Your task to perform on an android device: Is it going to rain tomorrow? Image 0: 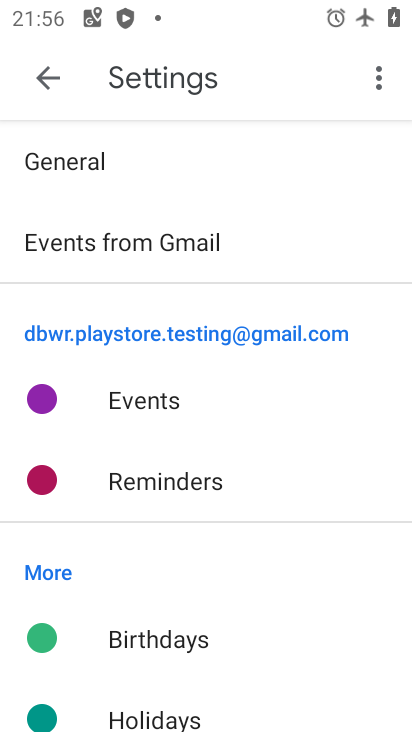
Step 0: press home button
Your task to perform on an android device: Is it going to rain tomorrow? Image 1: 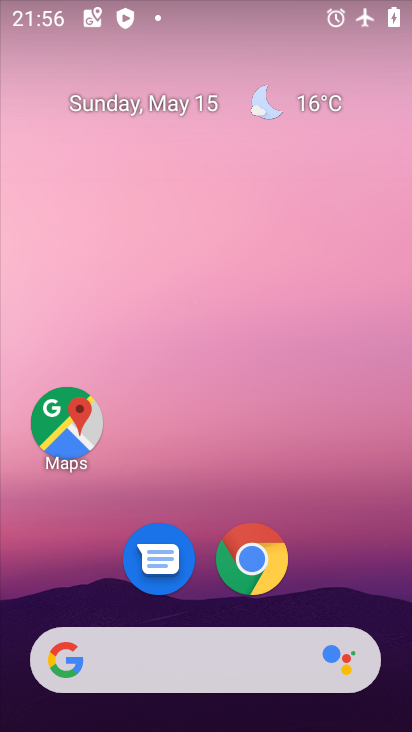
Step 1: click (188, 646)
Your task to perform on an android device: Is it going to rain tomorrow? Image 2: 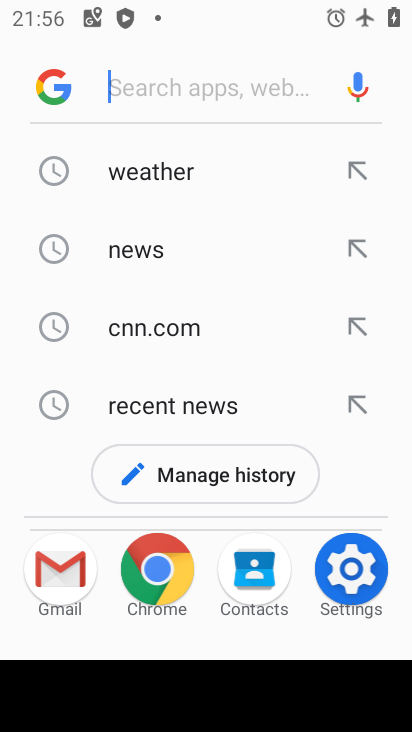
Step 2: click (151, 170)
Your task to perform on an android device: Is it going to rain tomorrow? Image 3: 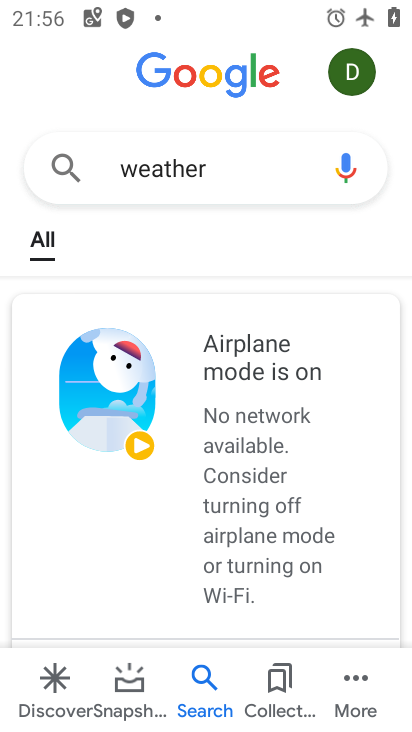
Step 3: task complete